Your task to perform on an android device: Show me recent news Image 0: 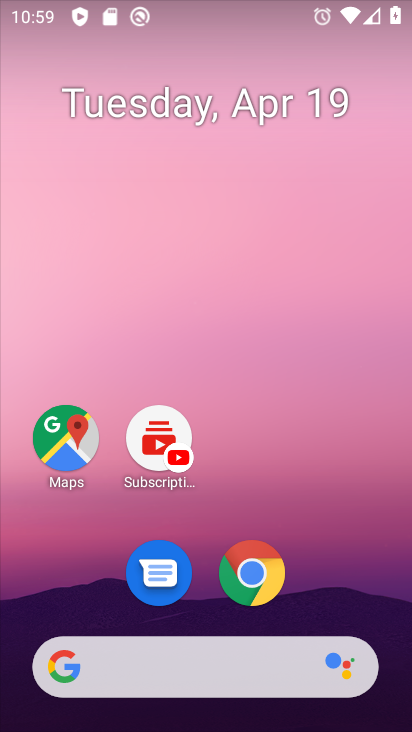
Step 0: click (244, 575)
Your task to perform on an android device: Show me recent news Image 1: 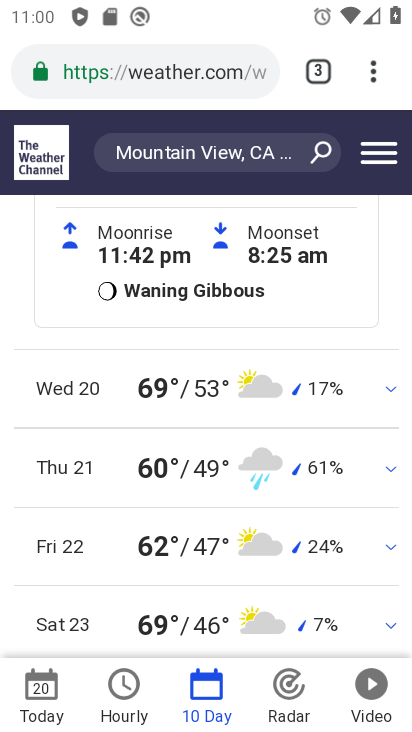
Step 1: click (326, 69)
Your task to perform on an android device: Show me recent news Image 2: 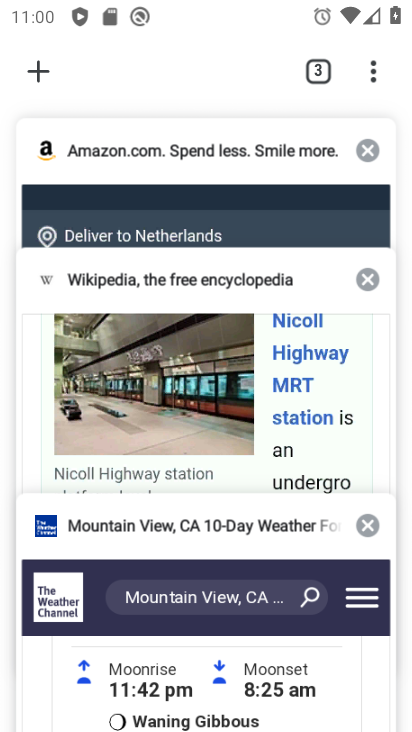
Step 2: click (36, 69)
Your task to perform on an android device: Show me recent news Image 3: 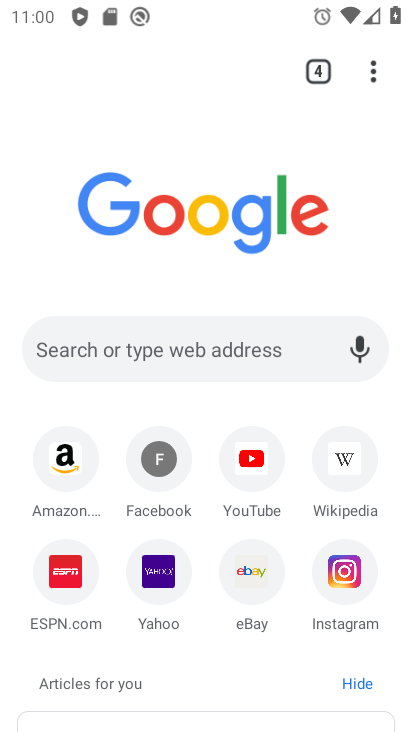
Step 3: click (144, 351)
Your task to perform on an android device: Show me recent news Image 4: 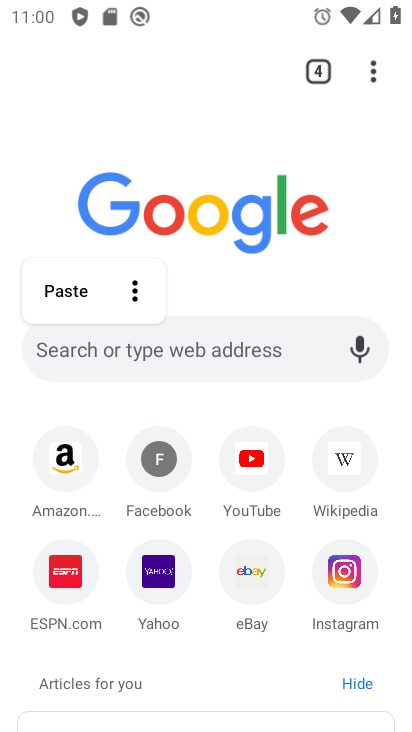
Step 4: type "recent news"
Your task to perform on an android device: Show me recent news Image 5: 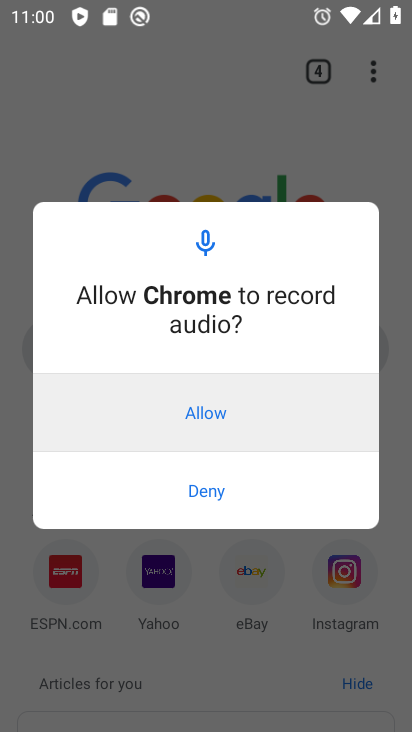
Step 5: click (209, 492)
Your task to perform on an android device: Show me recent news Image 6: 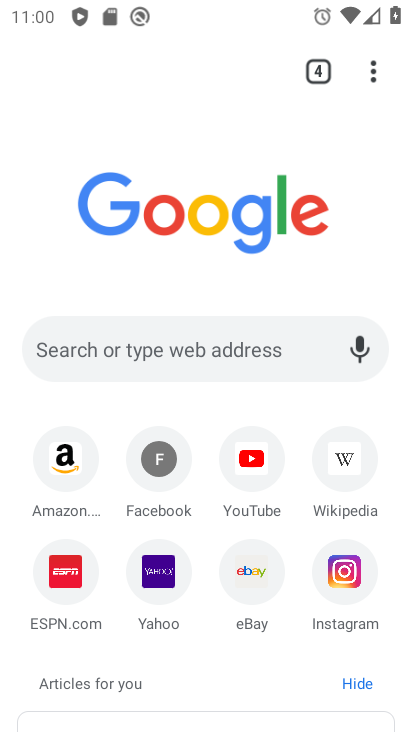
Step 6: click (189, 349)
Your task to perform on an android device: Show me recent news Image 7: 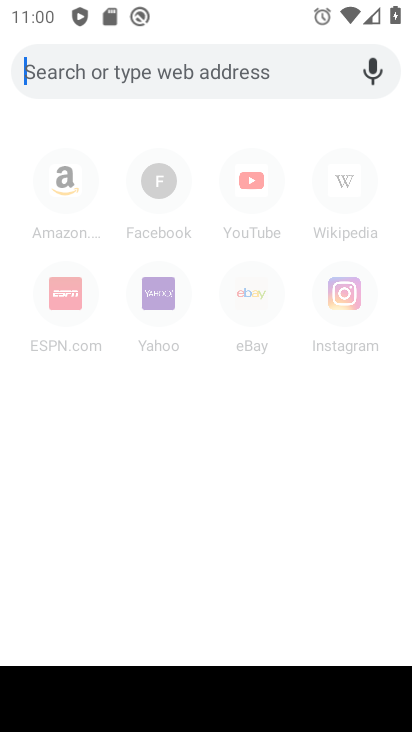
Step 7: type "recent news"
Your task to perform on an android device: Show me recent news Image 8: 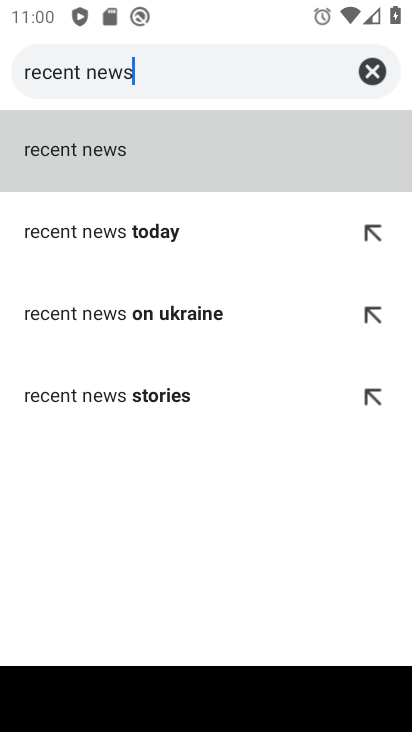
Step 8: click (99, 158)
Your task to perform on an android device: Show me recent news Image 9: 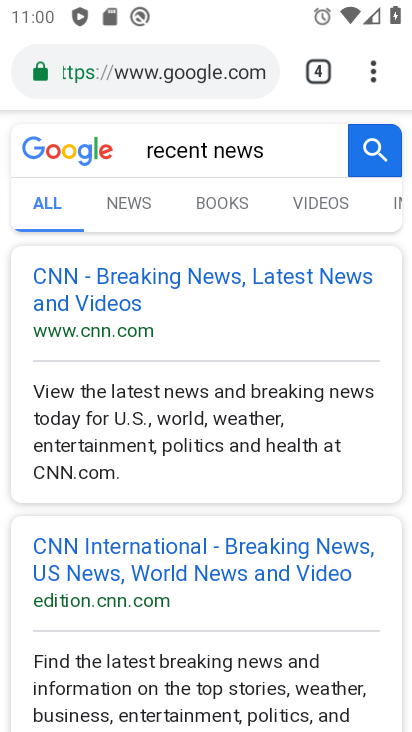
Step 9: click (114, 197)
Your task to perform on an android device: Show me recent news Image 10: 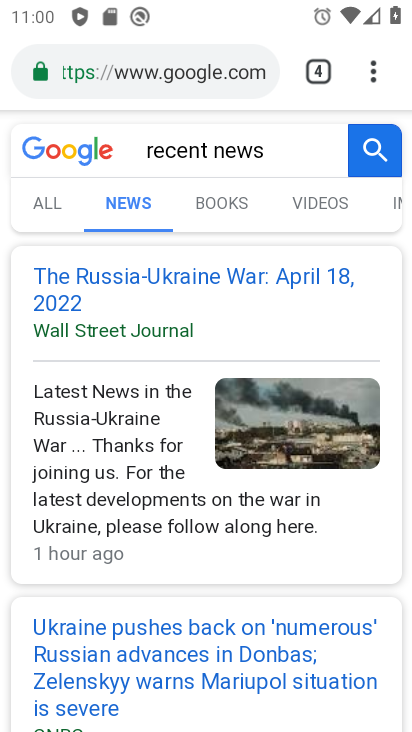
Step 10: task complete